Your task to perform on an android device: toggle location history Image 0: 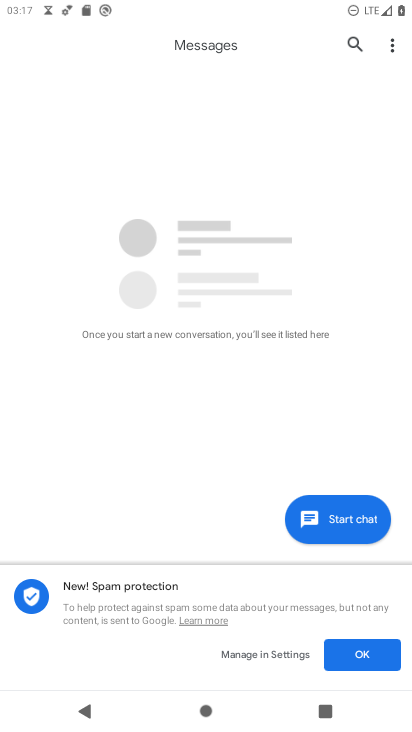
Step 0: press home button
Your task to perform on an android device: toggle location history Image 1: 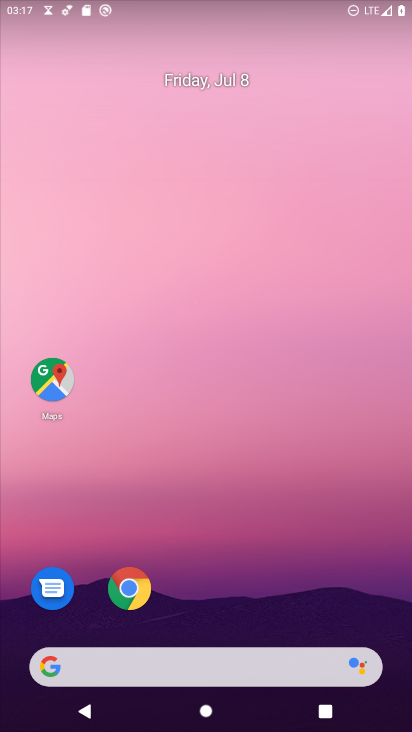
Step 1: click (181, 20)
Your task to perform on an android device: toggle location history Image 2: 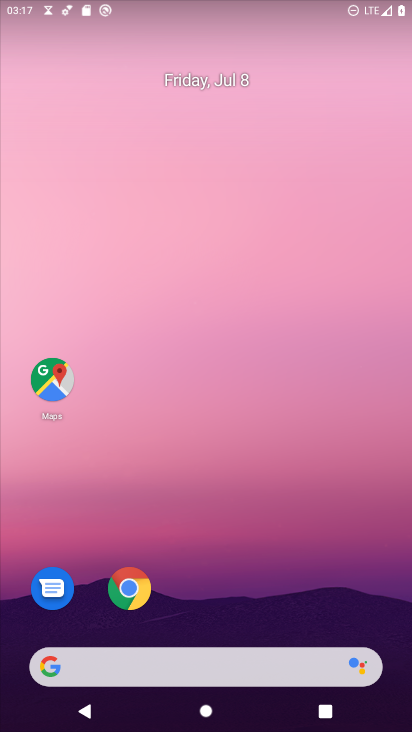
Step 2: drag from (187, 446) to (183, 77)
Your task to perform on an android device: toggle location history Image 3: 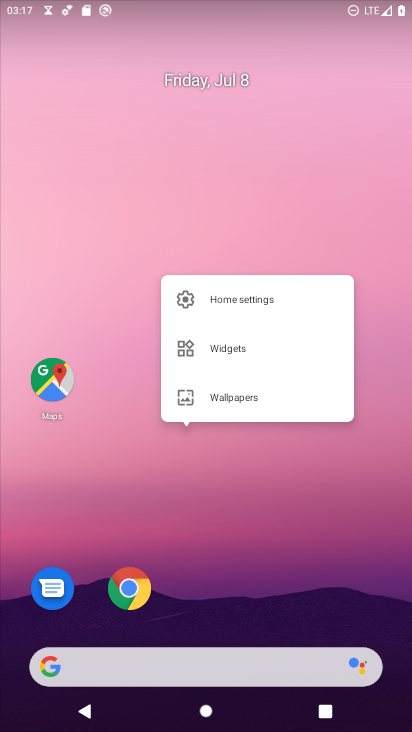
Step 3: click (217, 586)
Your task to perform on an android device: toggle location history Image 4: 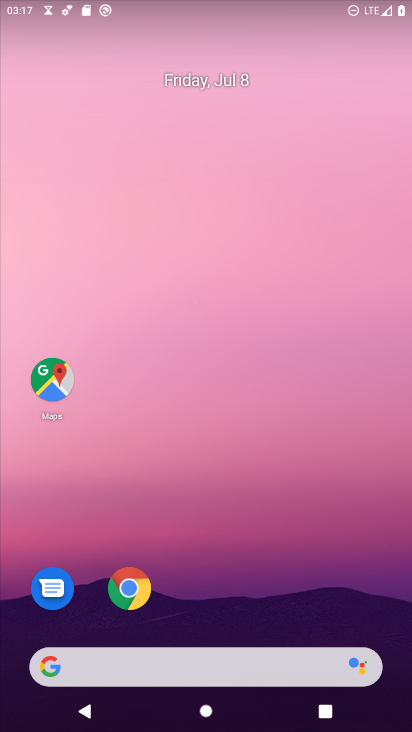
Step 4: drag from (198, 607) to (223, 14)
Your task to perform on an android device: toggle location history Image 5: 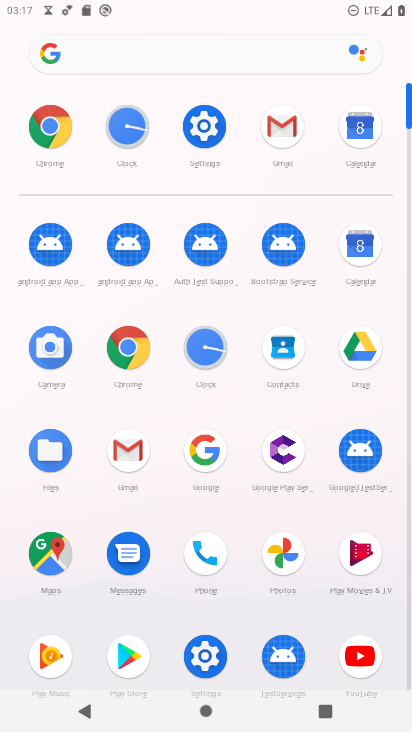
Step 5: click (197, 130)
Your task to perform on an android device: toggle location history Image 6: 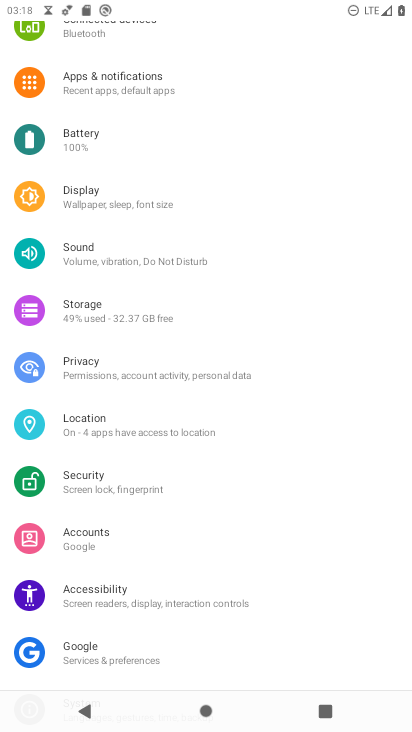
Step 6: click (78, 421)
Your task to perform on an android device: toggle location history Image 7: 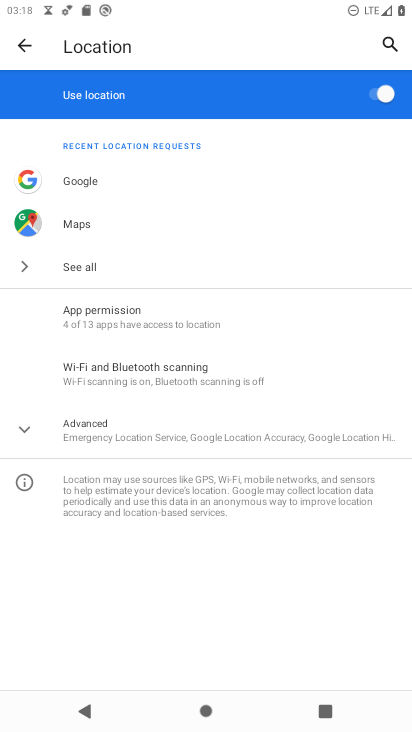
Step 7: click (83, 434)
Your task to perform on an android device: toggle location history Image 8: 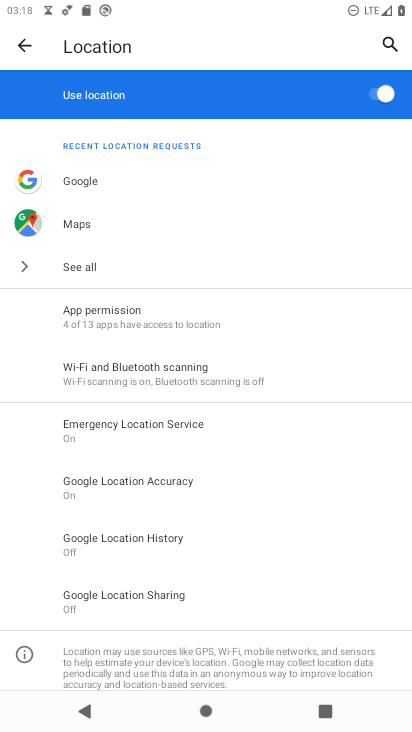
Step 8: click (104, 542)
Your task to perform on an android device: toggle location history Image 9: 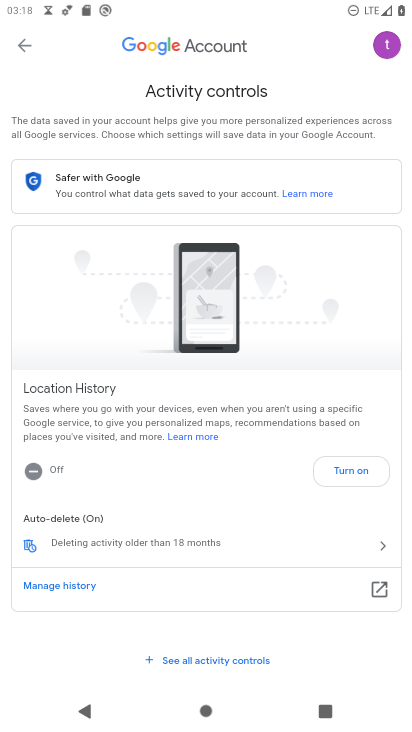
Step 9: click (358, 481)
Your task to perform on an android device: toggle location history Image 10: 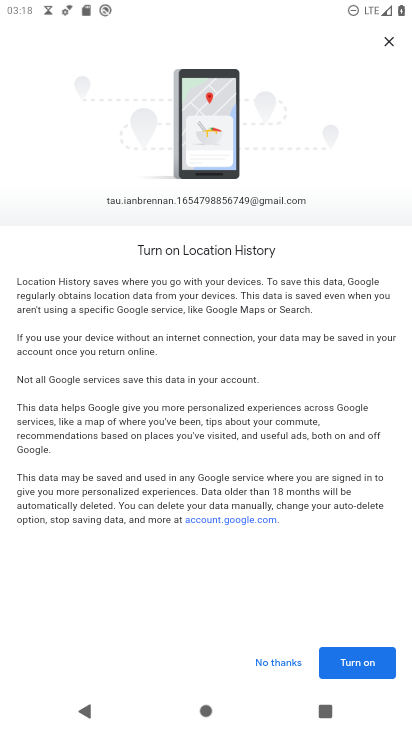
Step 10: drag from (292, 578) to (315, 347)
Your task to perform on an android device: toggle location history Image 11: 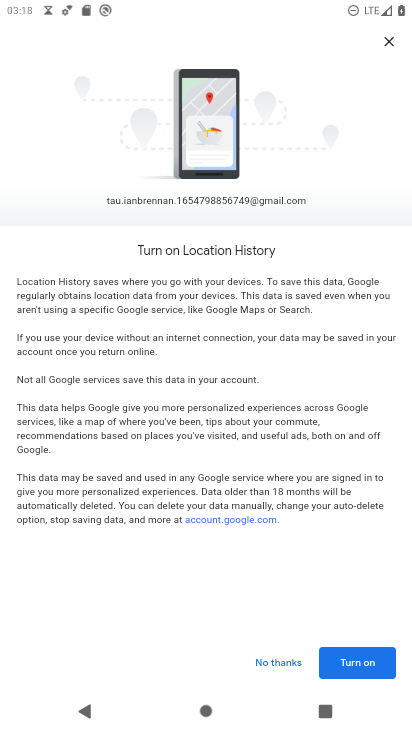
Step 11: click (357, 666)
Your task to perform on an android device: toggle location history Image 12: 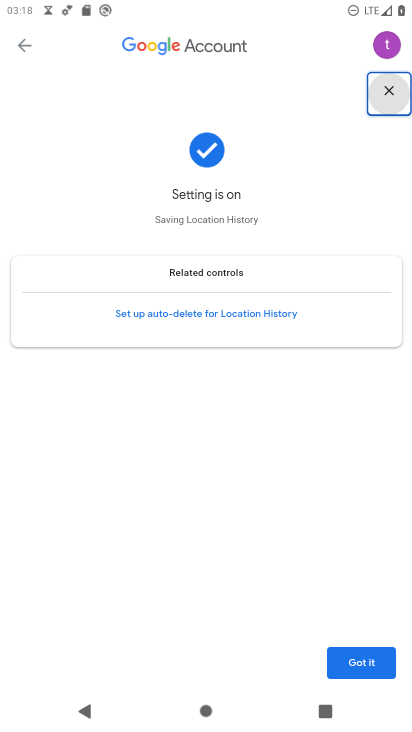
Step 12: click (357, 666)
Your task to perform on an android device: toggle location history Image 13: 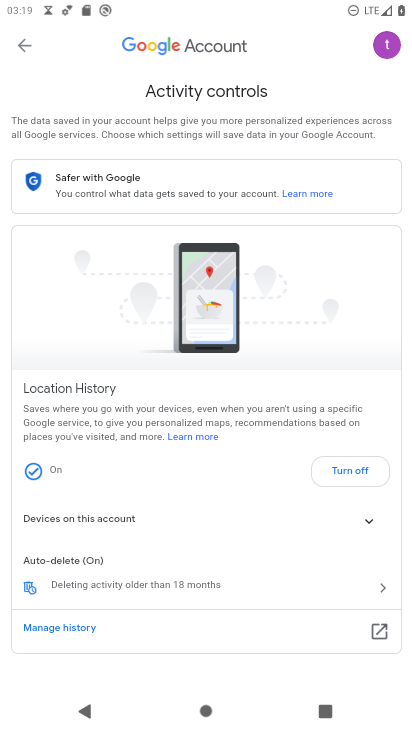
Step 13: task complete